Your task to perform on an android device: Check the news Image 0: 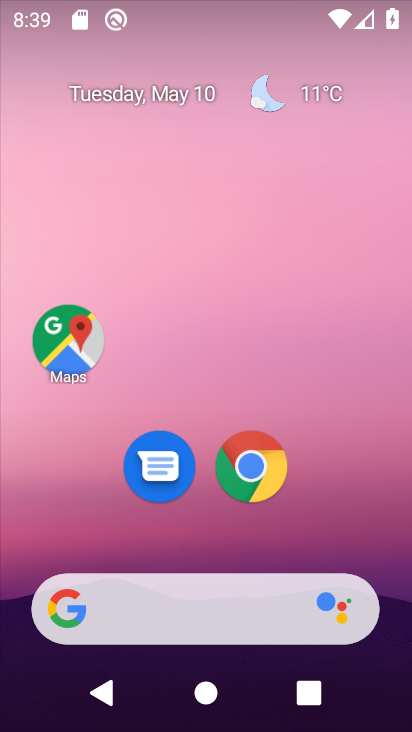
Step 0: click (220, 622)
Your task to perform on an android device: Check the news Image 1: 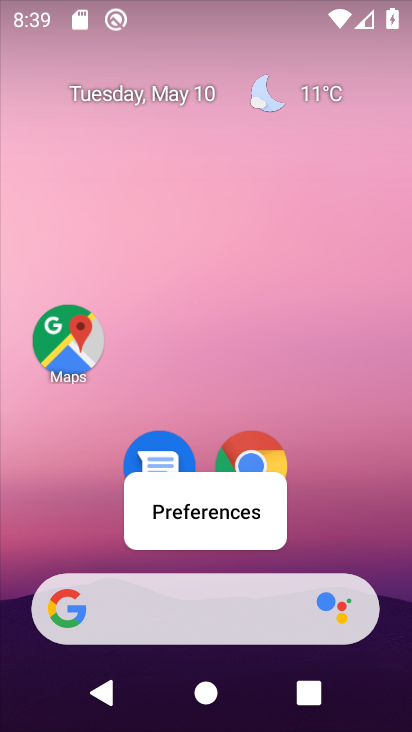
Step 1: click (184, 621)
Your task to perform on an android device: Check the news Image 2: 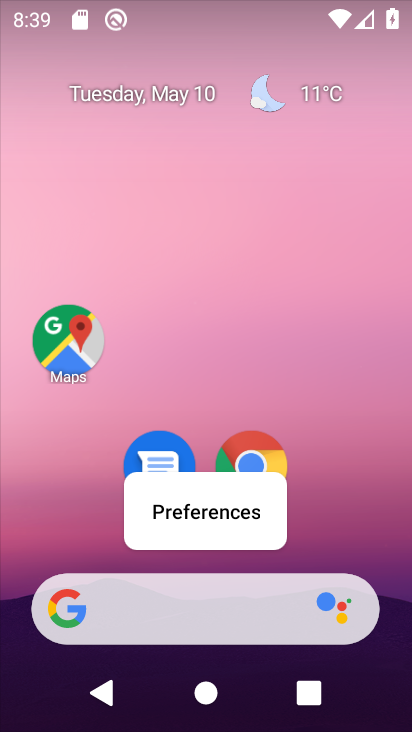
Step 2: click (182, 621)
Your task to perform on an android device: Check the news Image 3: 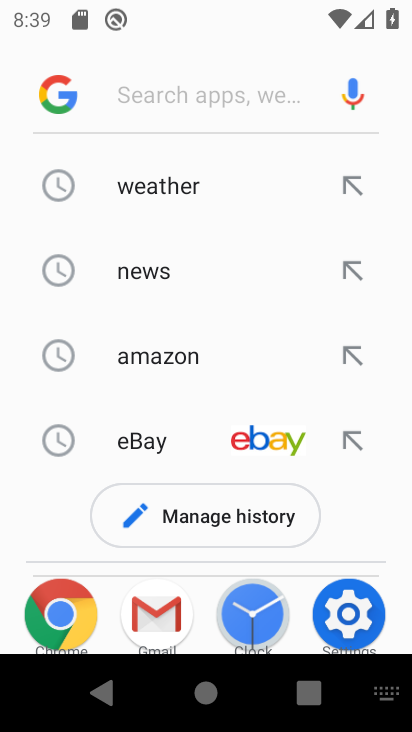
Step 3: click (181, 624)
Your task to perform on an android device: Check the news Image 4: 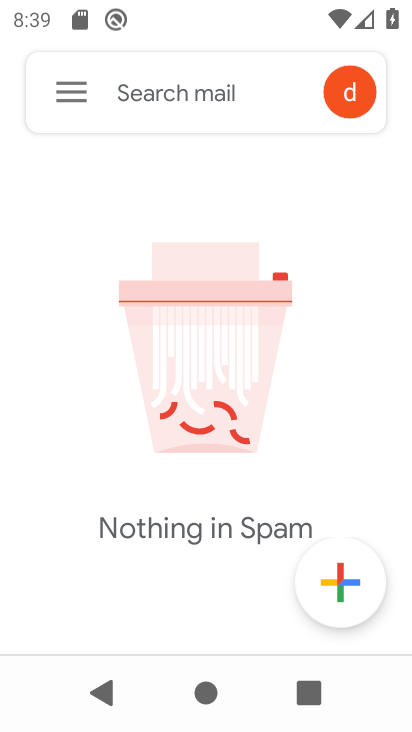
Step 4: press home button
Your task to perform on an android device: Check the news Image 5: 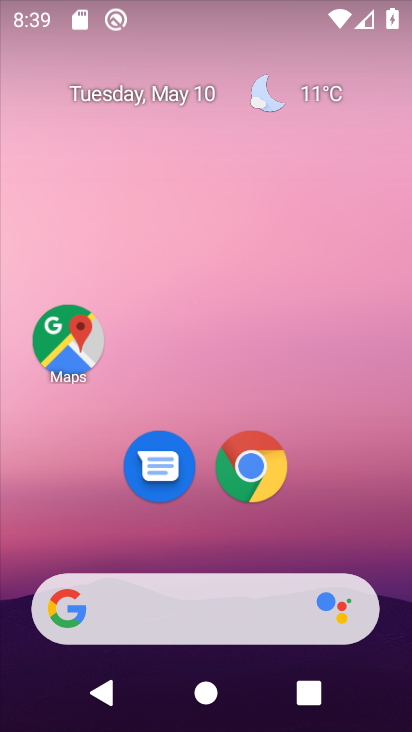
Step 5: click (210, 598)
Your task to perform on an android device: Check the news Image 6: 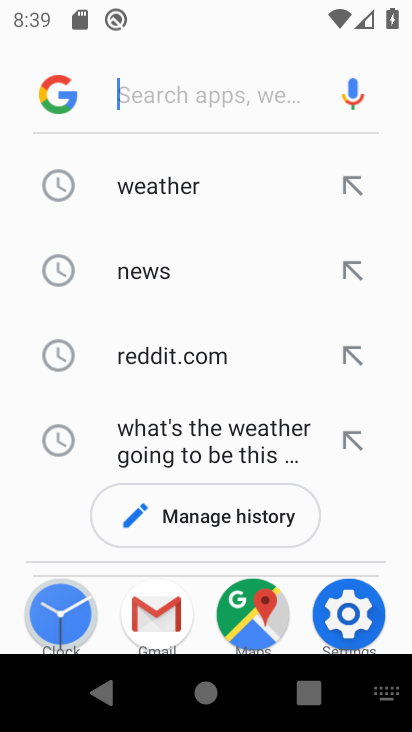
Step 6: click (214, 268)
Your task to perform on an android device: Check the news Image 7: 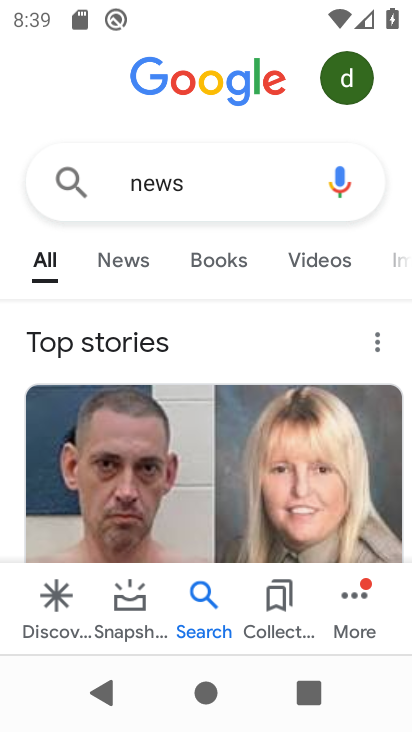
Step 7: task complete